Your task to perform on an android device: toggle translation in the chrome app Image 0: 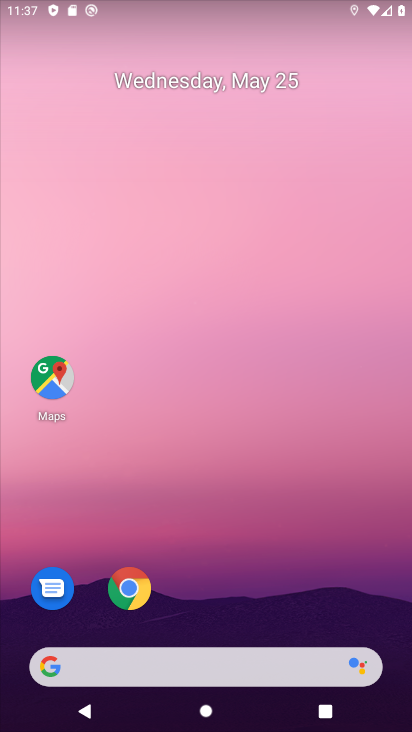
Step 0: click (135, 586)
Your task to perform on an android device: toggle translation in the chrome app Image 1: 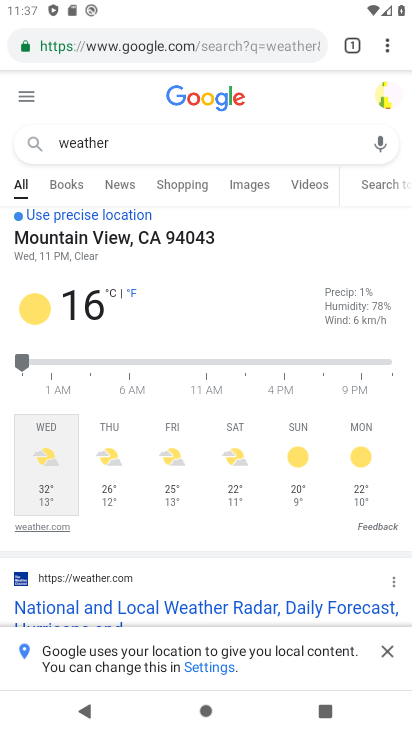
Step 1: click (386, 44)
Your task to perform on an android device: toggle translation in the chrome app Image 2: 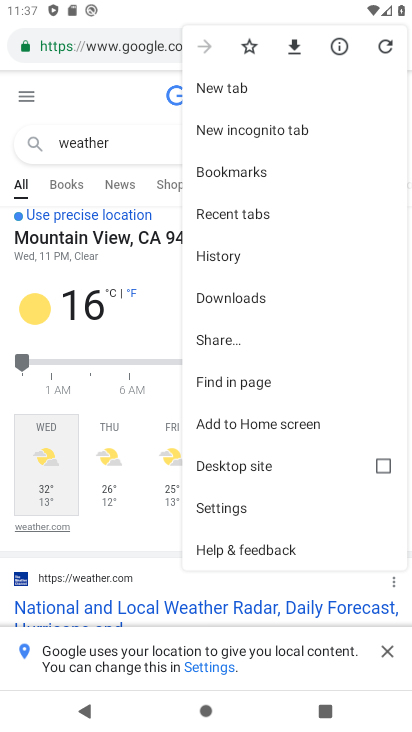
Step 2: click (238, 505)
Your task to perform on an android device: toggle translation in the chrome app Image 3: 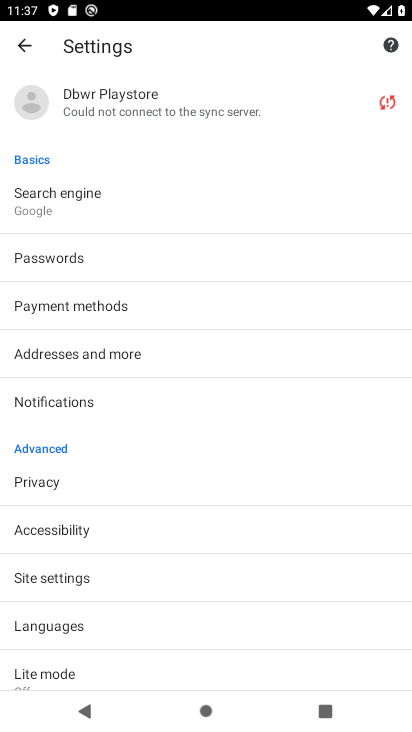
Step 3: click (65, 621)
Your task to perform on an android device: toggle translation in the chrome app Image 4: 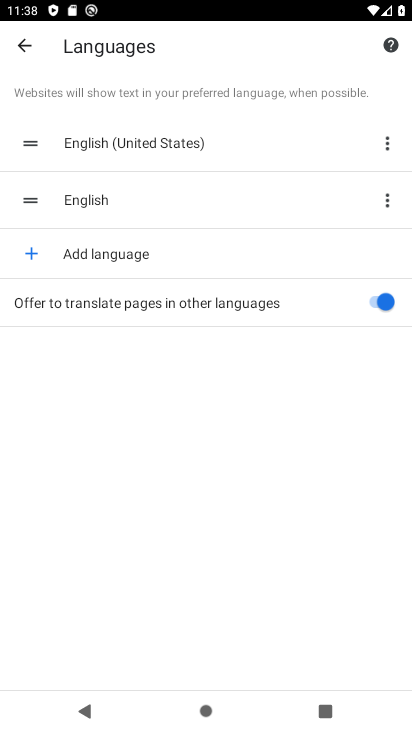
Step 4: click (378, 305)
Your task to perform on an android device: toggle translation in the chrome app Image 5: 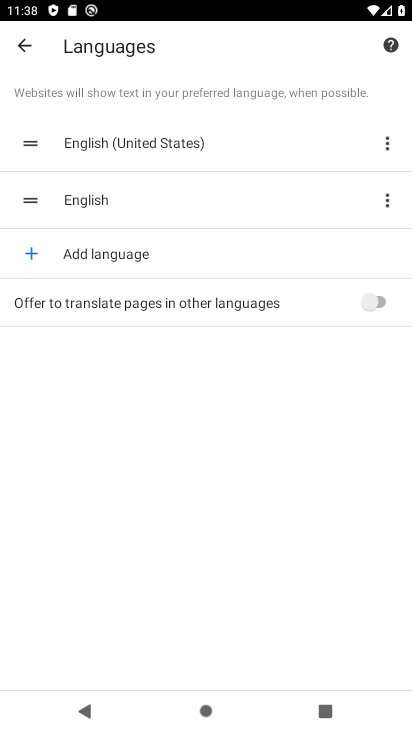
Step 5: task complete